Your task to perform on an android device: Go to Android settings Image 0: 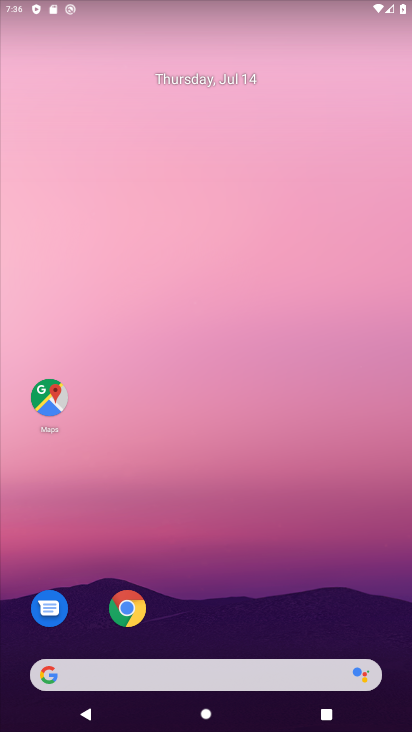
Step 0: drag from (208, 599) to (229, 129)
Your task to perform on an android device: Go to Android settings Image 1: 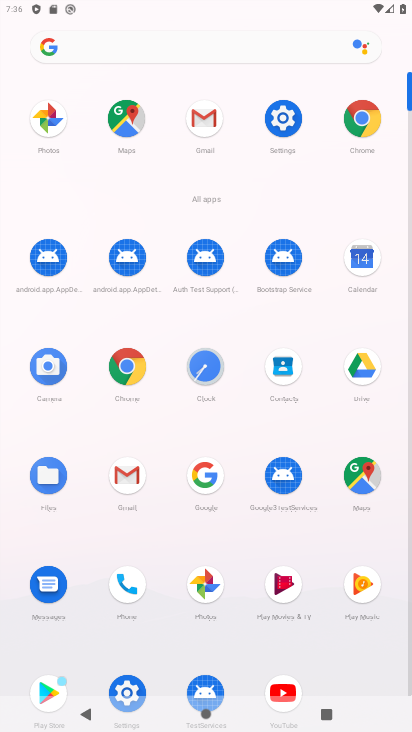
Step 1: click (274, 115)
Your task to perform on an android device: Go to Android settings Image 2: 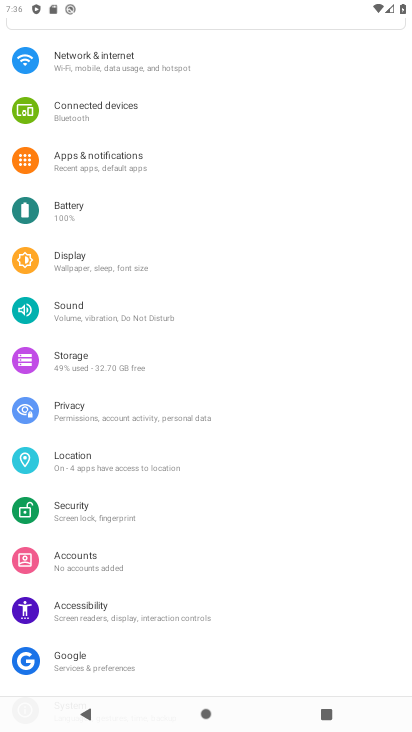
Step 2: task complete